Your task to perform on an android device: Open Google Chrome and click the shortcut for Amazon.com Image 0: 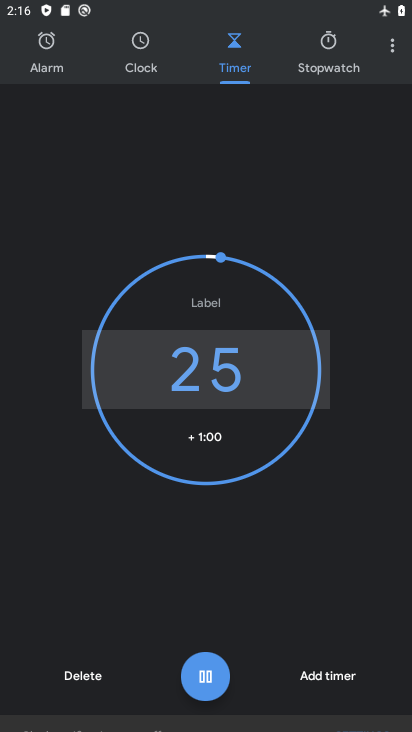
Step 0: click (78, 649)
Your task to perform on an android device: Open Google Chrome and click the shortcut for Amazon.com Image 1: 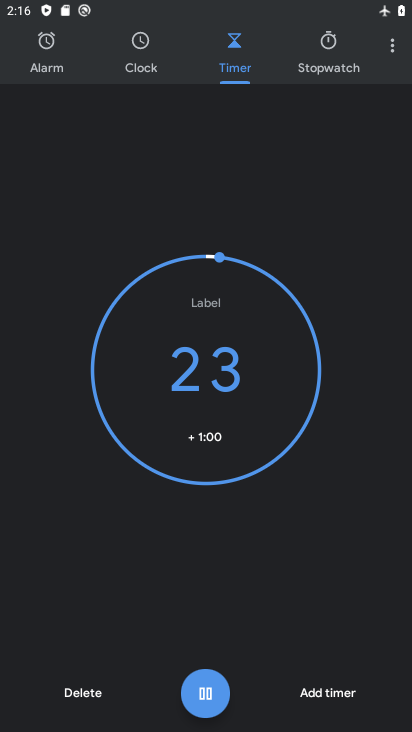
Step 1: press home button
Your task to perform on an android device: Open Google Chrome and click the shortcut for Amazon.com Image 2: 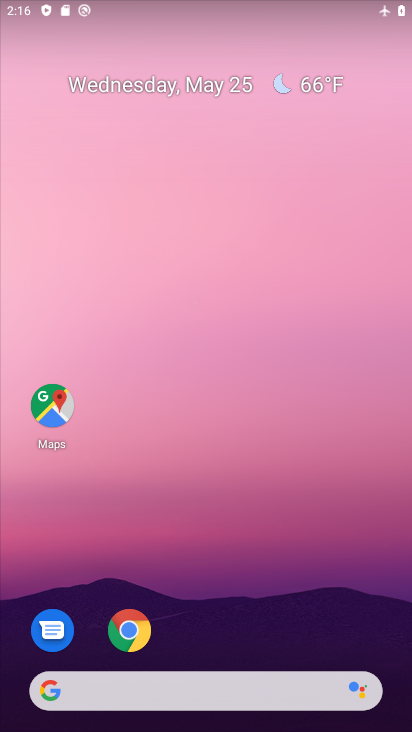
Step 2: click (132, 627)
Your task to perform on an android device: Open Google Chrome and click the shortcut for Amazon.com Image 3: 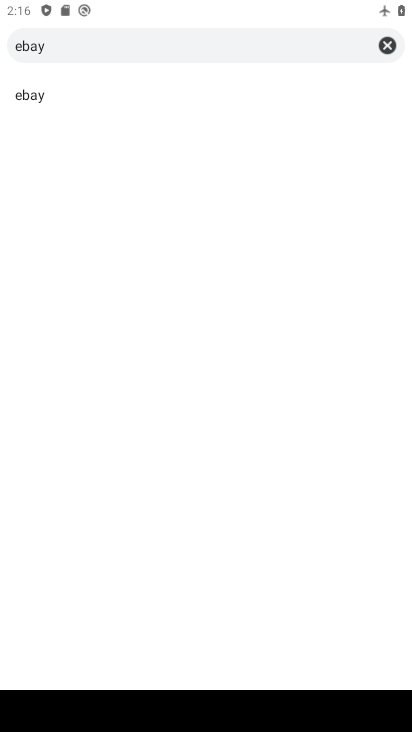
Step 3: click (384, 44)
Your task to perform on an android device: Open Google Chrome and click the shortcut for Amazon.com Image 4: 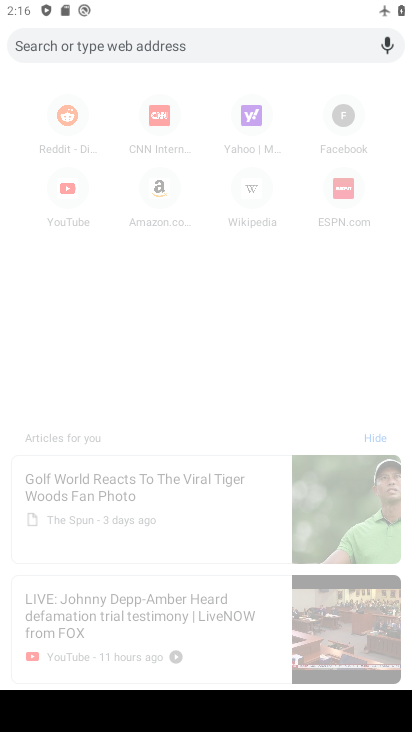
Step 4: click (131, 253)
Your task to perform on an android device: Open Google Chrome and click the shortcut for Amazon.com Image 5: 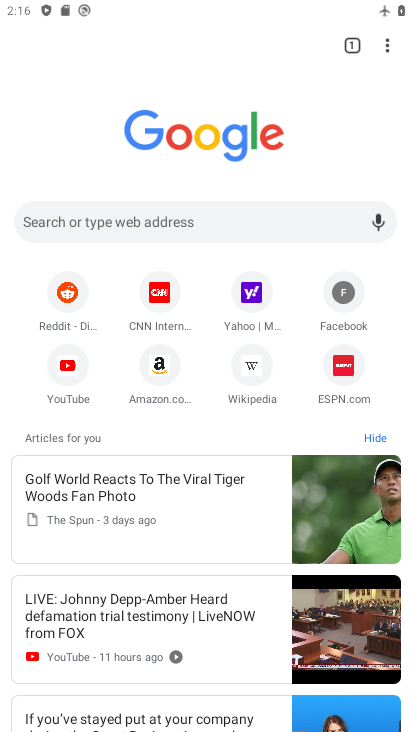
Step 5: click (158, 359)
Your task to perform on an android device: Open Google Chrome and click the shortcut for Amazon.com Image 6: 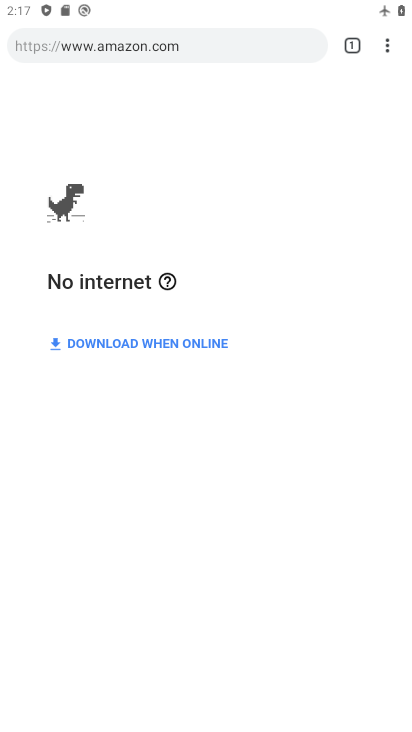
Step 6: task complete